Your task to perform on an android device: turn off picture-in-picture Image 0: 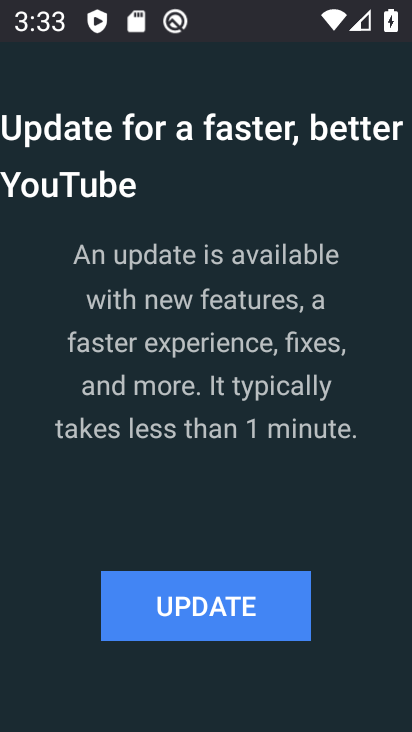
Step 0: press home button
Your task to perform on an android device: turn off picture-in-picture Image 1: 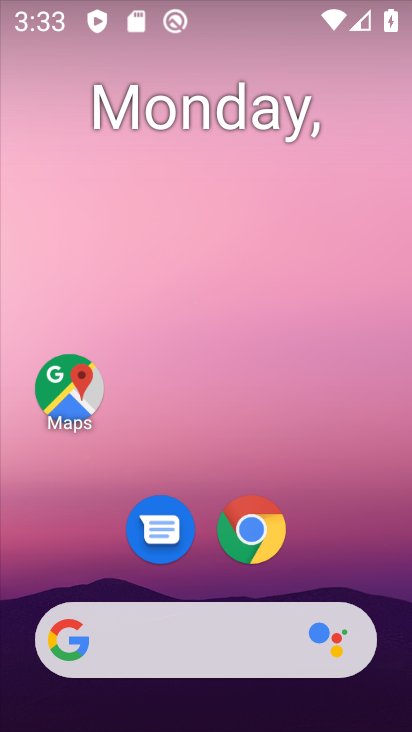
Step 1: click (245, 520)
Your task to perform on an android device: turn off picture-in-picture Image 2: 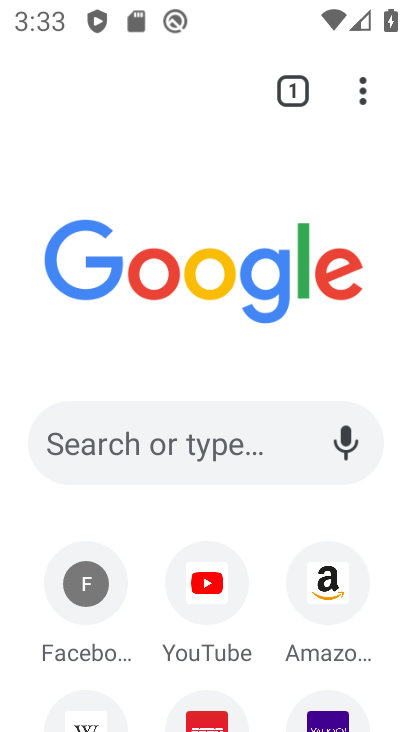
Step 2: click (347, 99)
Your task to perform on an android device: turn off picture-in-picture Image 3: 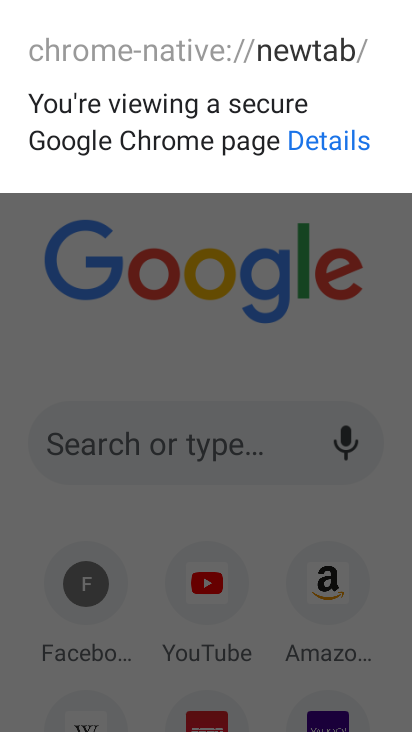
Step 3: press home button
Your task to perform on an android device: turn off picture-in-picture Image 4: 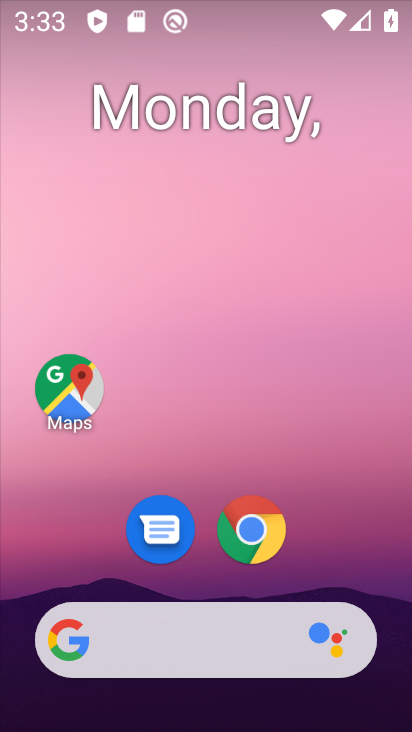
Step 4: click (256, 541)
Your task to perform on an android device: turn off picture-in-picture Image 5: 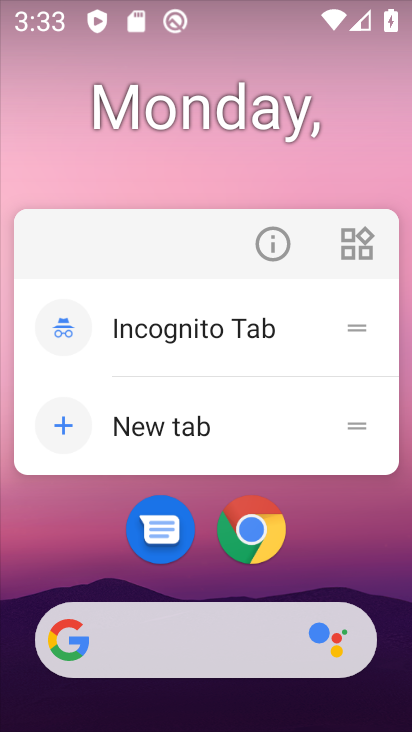
Step 5: click (268, 239)
Your task to perform on an android device: turn off picture-in-picture Image 6: 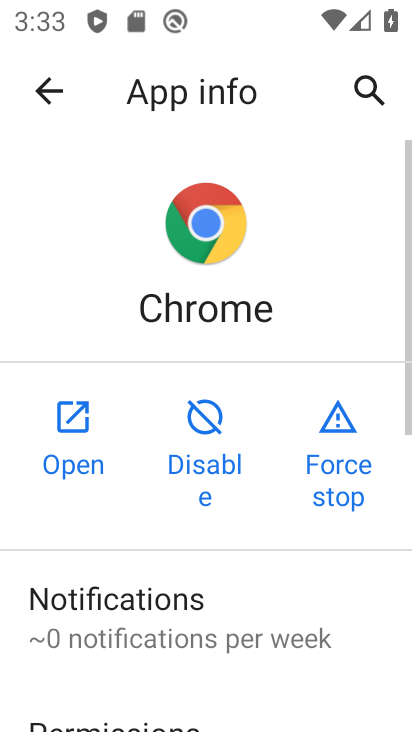
Step 6: drag from (104, 538) to (194, 123)
Your task to perform on an android device: turn off picture-in-picture Image 7: 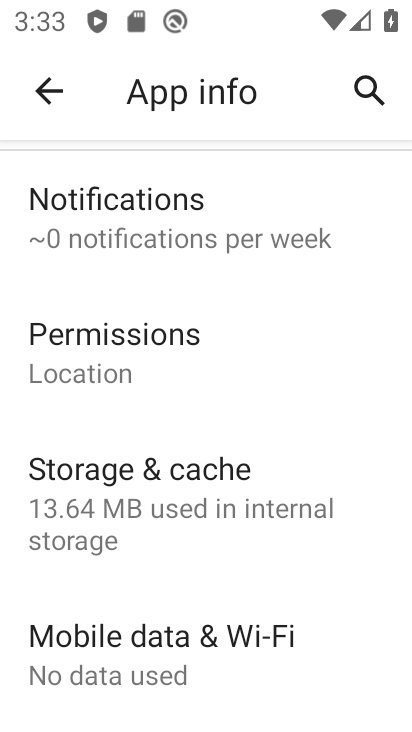
Step 7: drag from (118, 605) to (259, 12)
Your task to perform on an android device: turn off picture-in-picture Image 8: 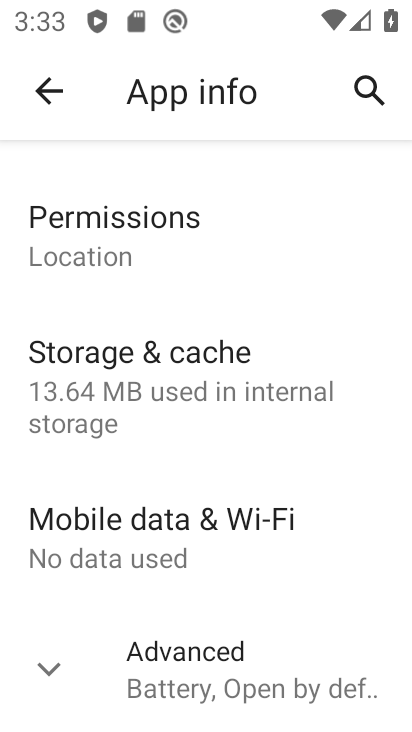
Step 8: click (178, 662)
Your task to perform on an android device: turn off picture-in-picture Image 9: 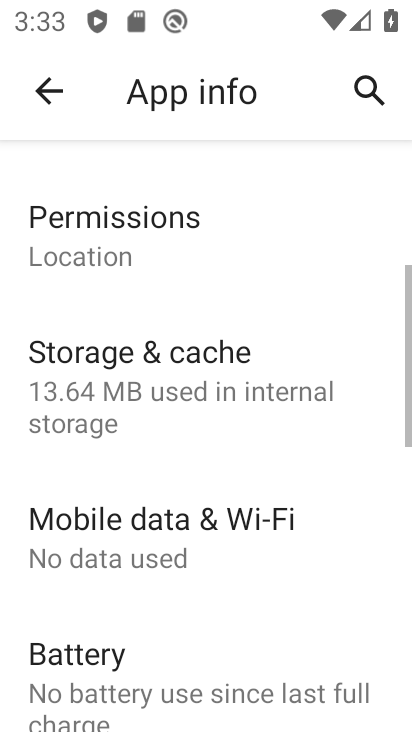
Step 9: drag from (181, 607) to (304, 183)
Your task to perform on an android device: turn off picture-in-picture Image 10: 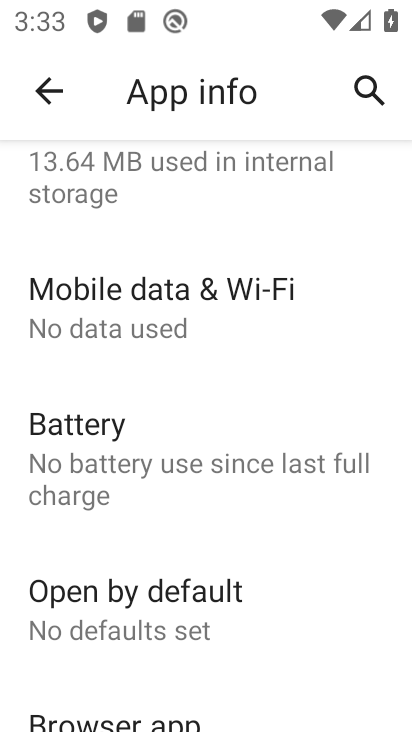
Step 10: drag from (110, 642) to (197, 170)
Your task to perform on an android device: turn off picture-in-picture Image 11: 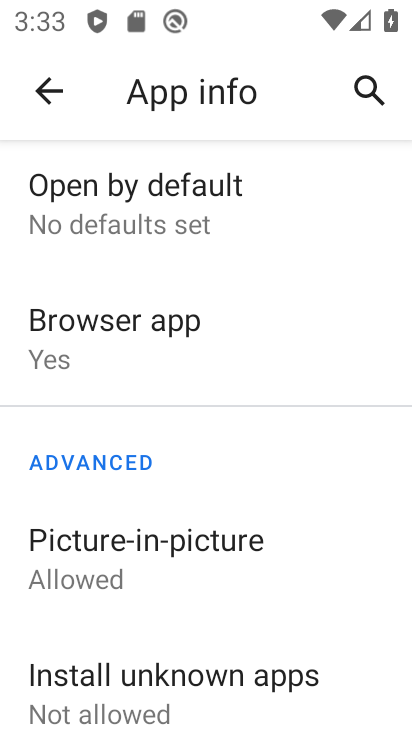
Step 11: click (136, 592)
Your task to perform on an android device: turn off picture-in-picture Image 12: 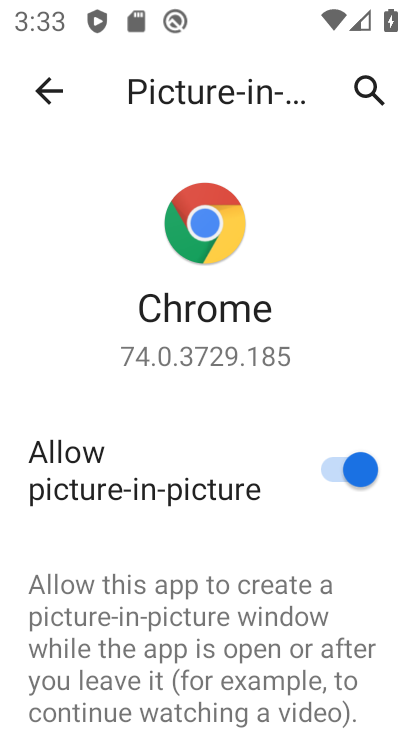
Step 12: click (305, 461)
Your task to perform on an android device: turn off picture-in-picture Image 13: 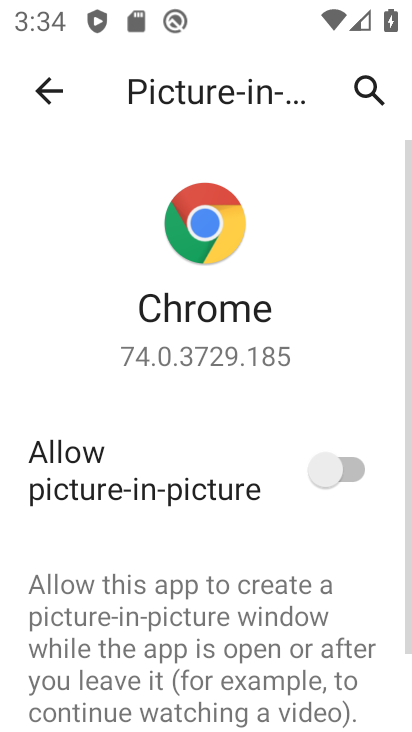
Step 13: task complete